Your task to perform on an android device: open chrome and create a bookmark for the current page Image 0: 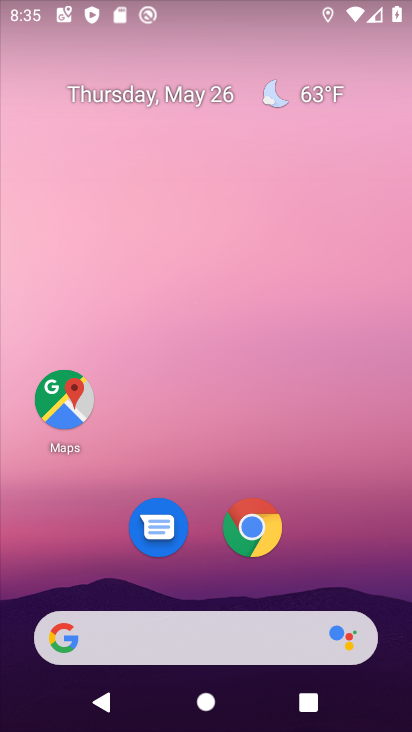
Step 0: drag from (335, 561) to (296, 39)
Your task to perform on an android device: open chrome and create a bookmark for the current page Image 1: 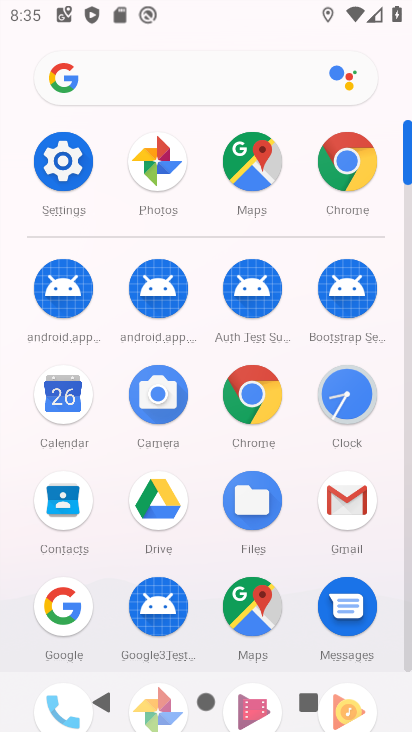
Step 1: drag from (254, 312) to (254, 411)
Your task to perform on an android device: open chrome and create a bookmark for the current page Image 2: 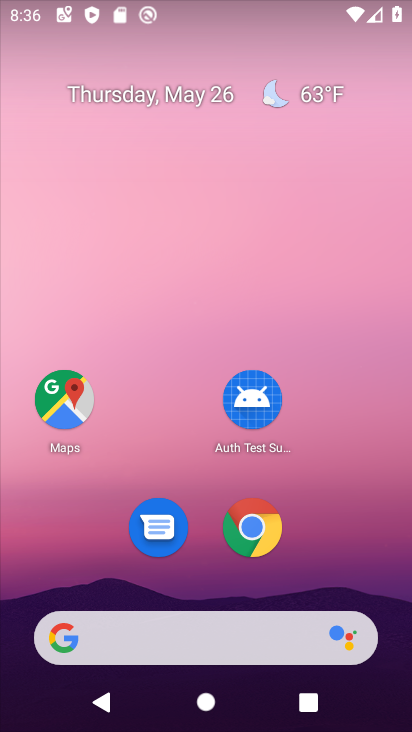
Step 2: click (259, 528)
Your task to perform on an android device: open chrome and create a bookmark for the current page Image 3: 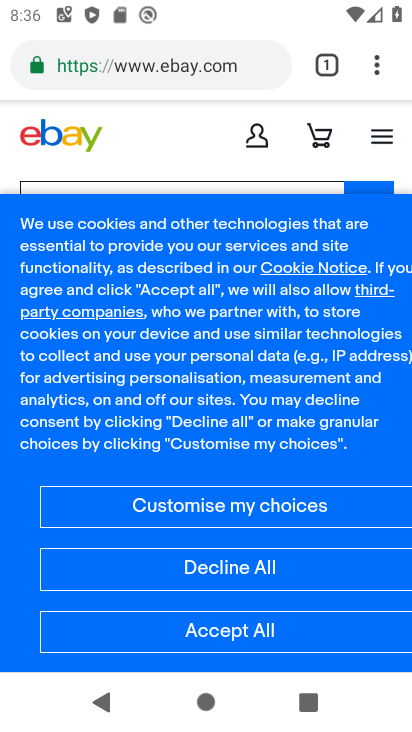
Step 3: task complete